Your task to perform on an android device: add a label to a message in the gmail app Image 0: 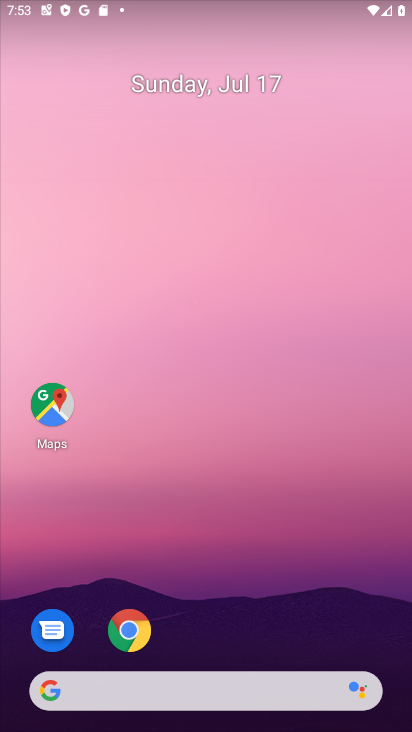
Step 0: drag from (198, 535) to (226, 25)
Your task to perform on an android device: add a label to a message in the gmail app Image 1: 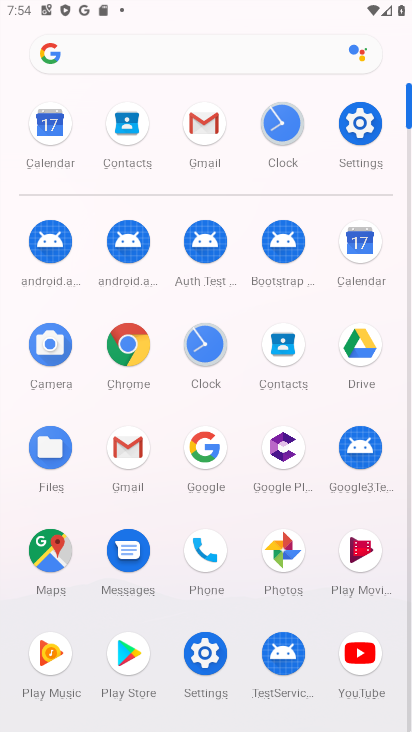
Step 1: click (196, 126)
Your task to perform on an android device: add a label to a message in the gmail app Image 2: 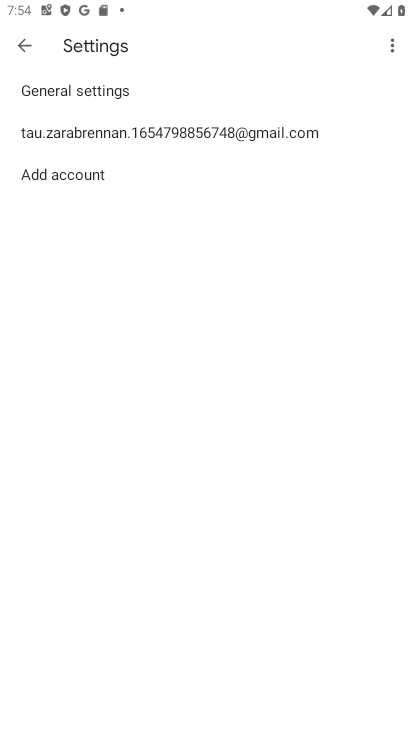
Step 2: click (24, 45)
Your task to perform on an android device: add a label to a message in the gmail app Image 3: 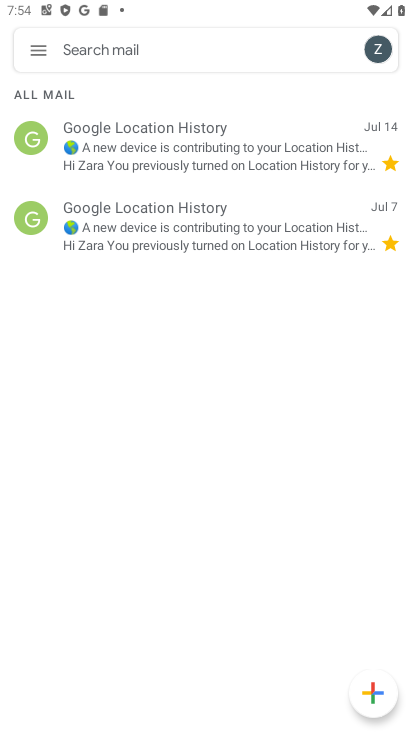
Step 3: click (255, 153)
Your task to perform on an android device: add a label to a message in the gmail app Image 4: 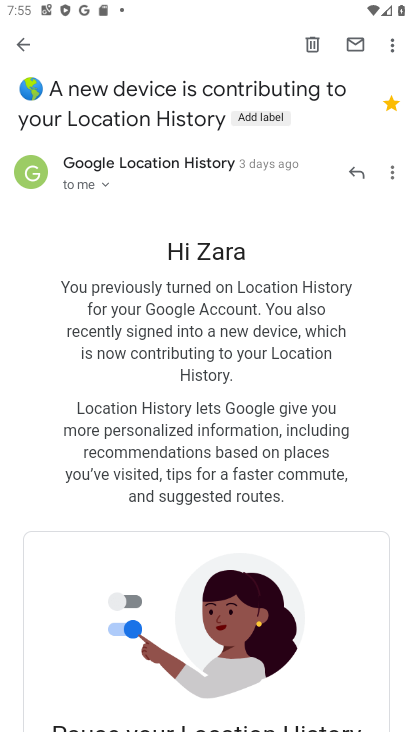
Step 4: click (253, 120)
Your task to perform on an android device: add a label to a message in the gmail app Image 5: 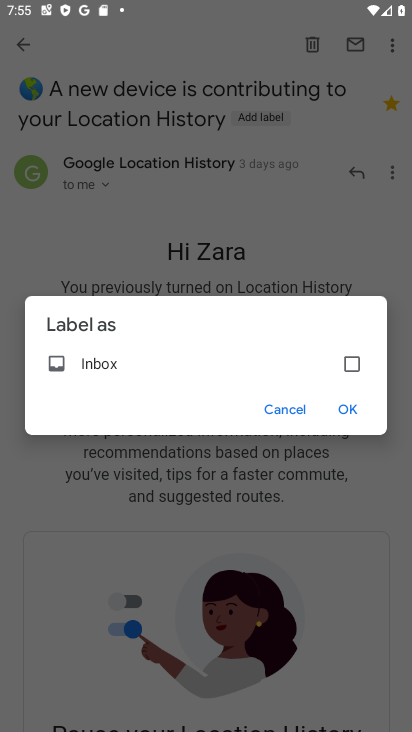
Step 5: click (353, 361)
Your task to perform on an android device: add a label to a message in the gmail app Image 6: 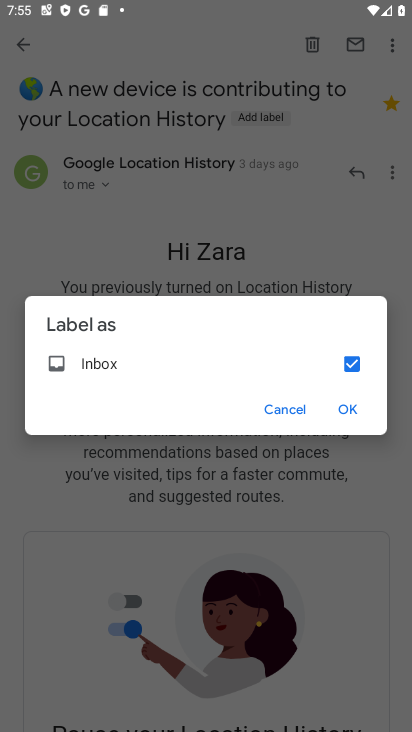
Step 6: click (348, 403)
Your task to perform on an android device: add a label to a message in the gmail app Image 7: 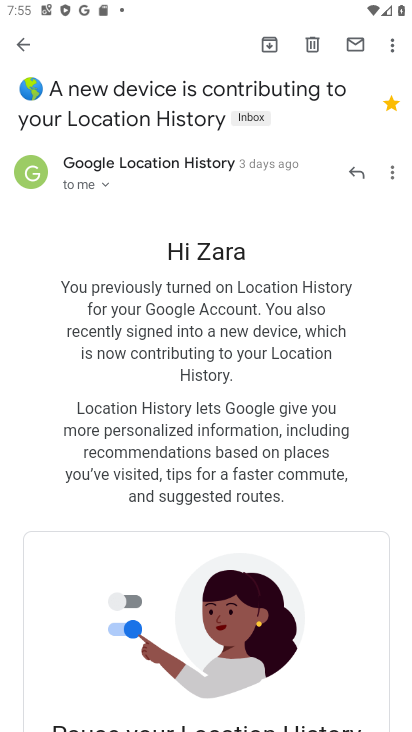
Step 7: task complete